Your task to perform on an android device: Is it going to rain this weekend? Image 0: 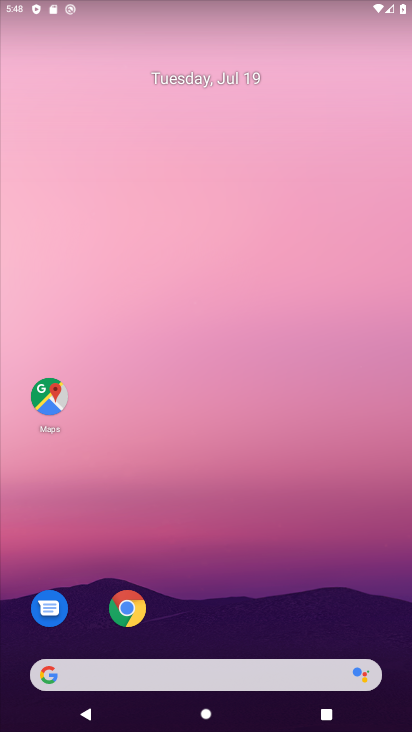
Step 0: drag from (126, 301) to (401, 416)
Your task to perform on an android device: Is it going to rain this weekend? Image 1: 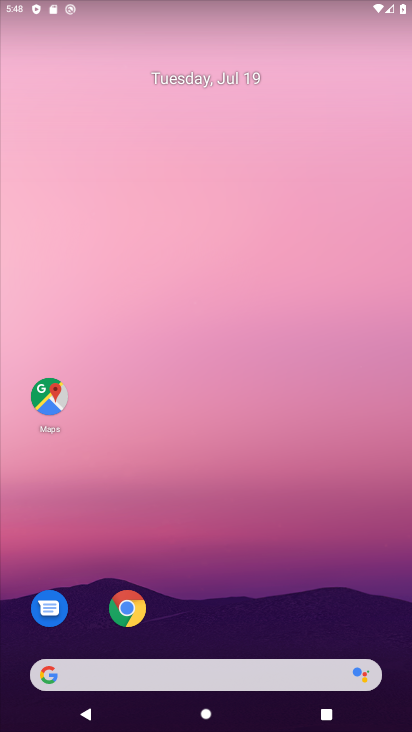
Step 1: drag from (3, 331) to (408, 350)
Your task to perform on an android device: Is it going to rain this weekend? Image 2: 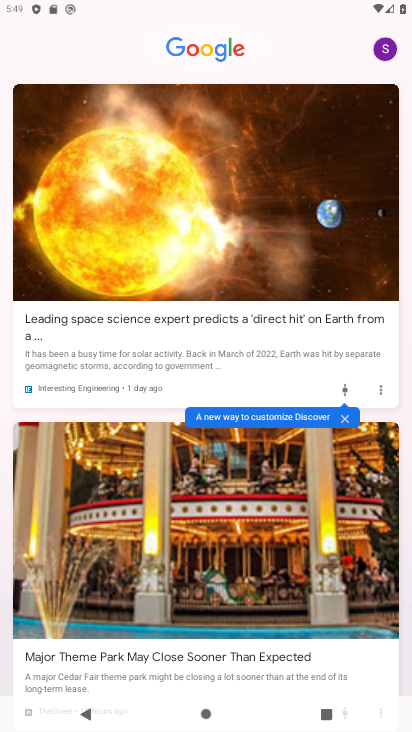
Step 2: press back button
Your task to perform on an android device: Is it going to rain this weekend? Image 3: 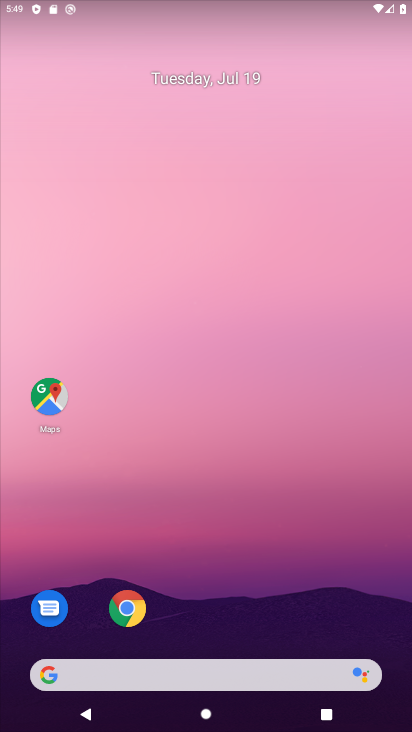
Step 3: click (223, 671)
Your task to perform on an android device: Is it going to rain this weekend? Image 4: 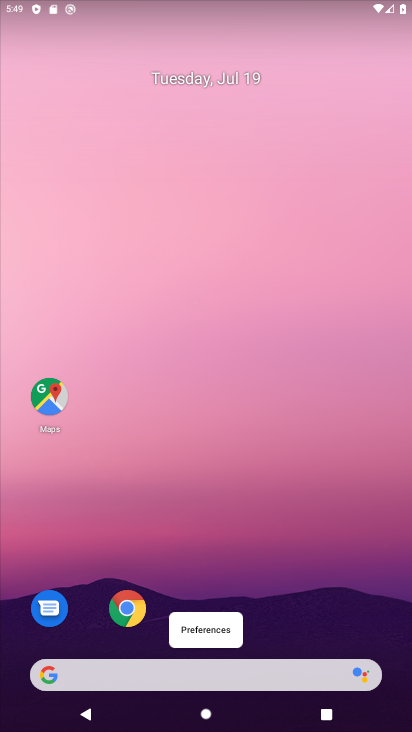
Step 4: click (177, 671)
Your task to perform on an android device: Is it going to rain this weekend? Image 5: 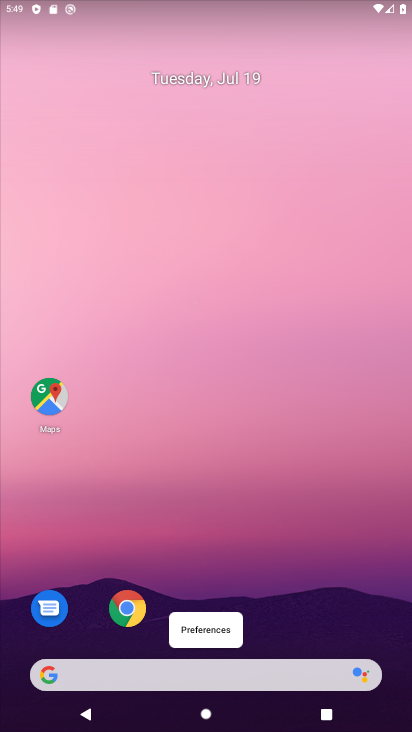
Step 5: click (177, 670)
Your task to perform on an android device: Is it going to rain this weekend? Image 6: 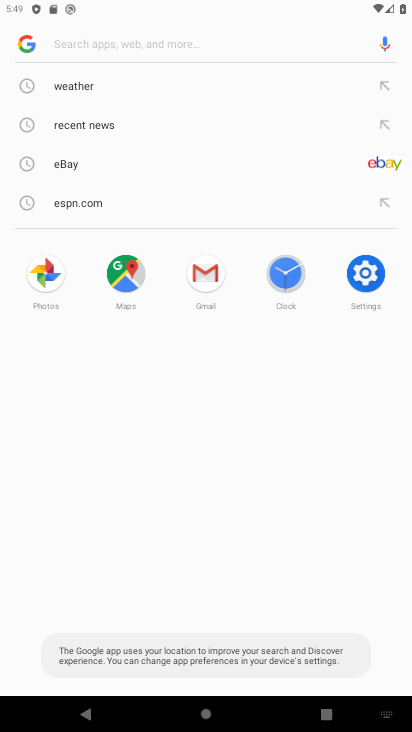
Step 6: click (104, 75)
Your task to perform on an android device: Is it going to rain this weekend? Image 7: 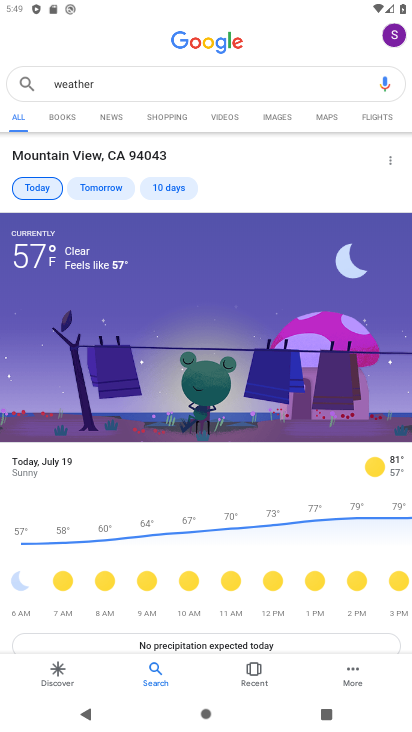
Step 7: click (164, 189)
Your task to perform on an android device: Is it going to rain this weekend? Image 8: 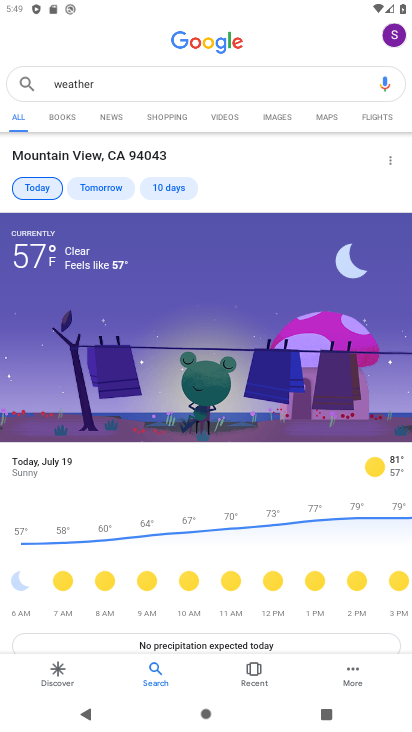
Step 8: click (169, 185)
Your task to perform on an android device: Is it going to rain this weekend? Image 9: 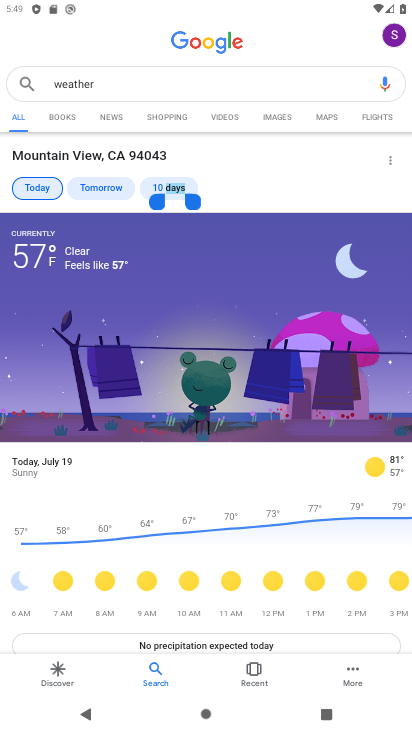
Step 9: task complete